Your task to perform on an android device: turn on translation in the chrome app Image 0: 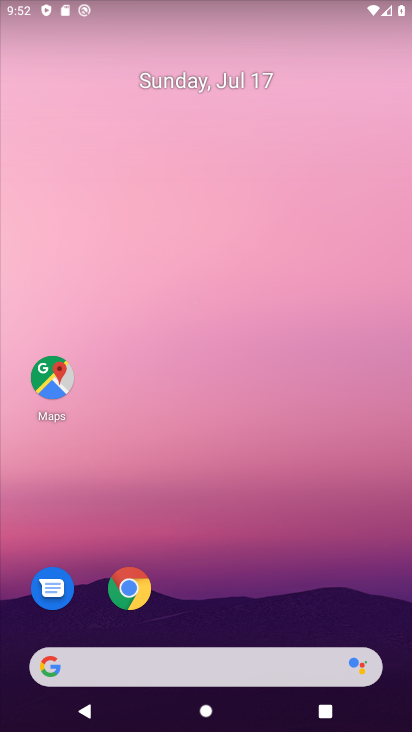
Step 0: click (136, 584)
Your task to perform on an android device: turn on translation in the chrome app Image 1: 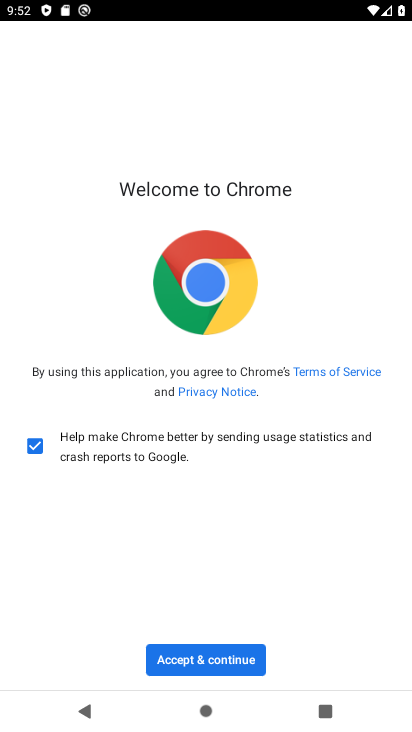
Step 1: click (212, 660)
Your task to perform on an android device: turn on translation in the chrome app Image 2: 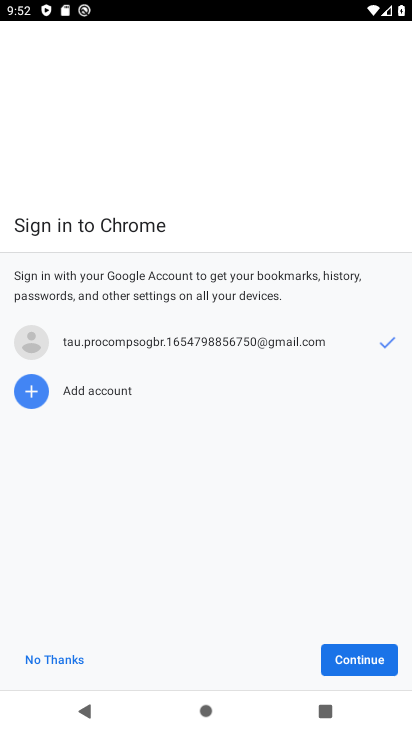
Step 2: click (370, 660)
Your task to perform on an android device: turn on translation in the chrome app Image 3: 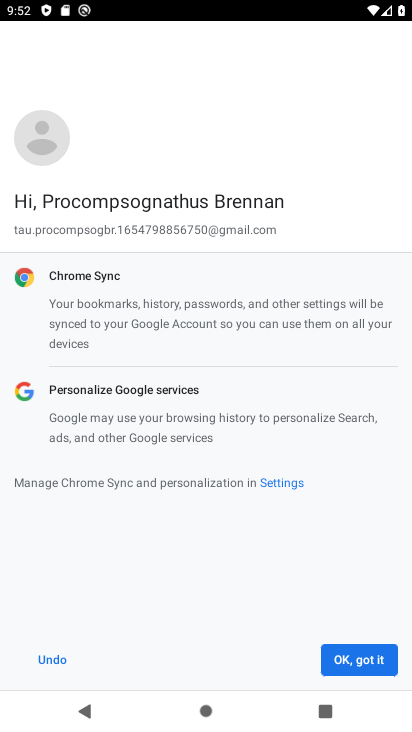
Step 3: click (370, 660)
Your task to perform on an android device: turn on translation in the chrome app Image 4: 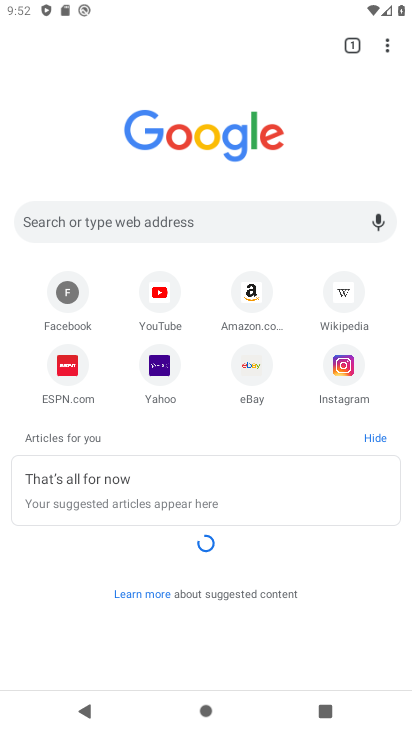
Step 4: click (390, 43)
Your task to perform on an android device: turn on translation in the chrome app Image 5: 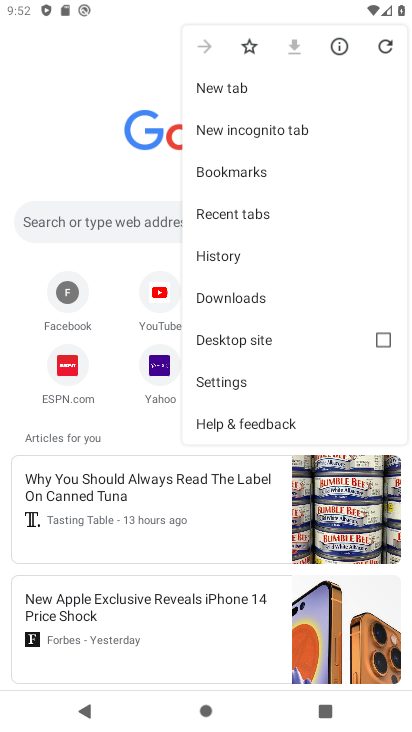
Step 5: click (234, 382)
Your task to perform on an android device: turn on translation in the chrome app Image 6: 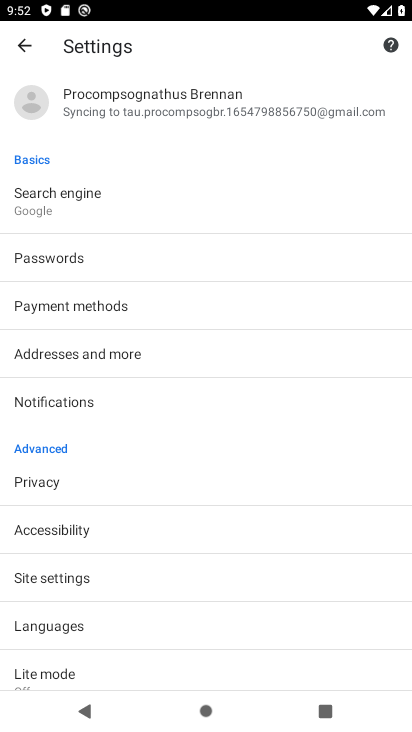
Step 6: click (69, 624)
Your task to perform on an android device: turn on translation in the chrome app Image 7: 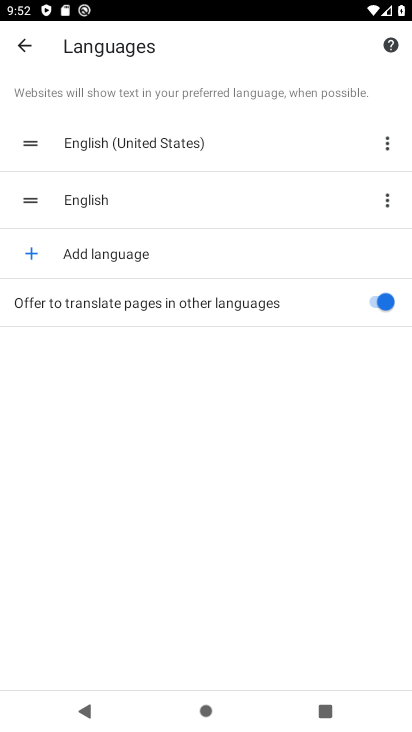
Step 7: task complete